Your task to perform on an android device: Open privacy settings Image 0: 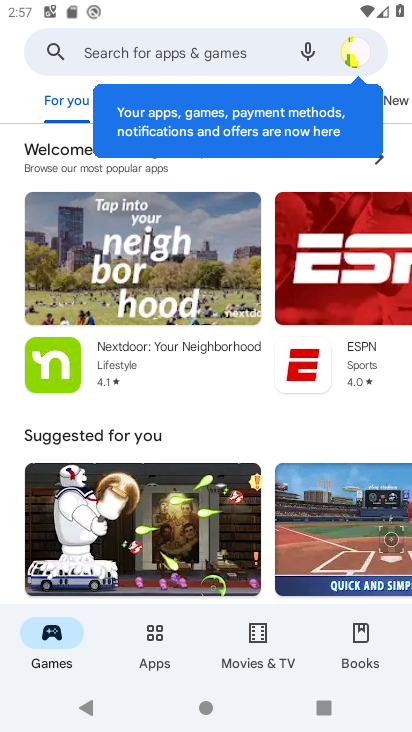
Step 0: press home button
Your task to perform on an android device: Open privacy settings Image 1: 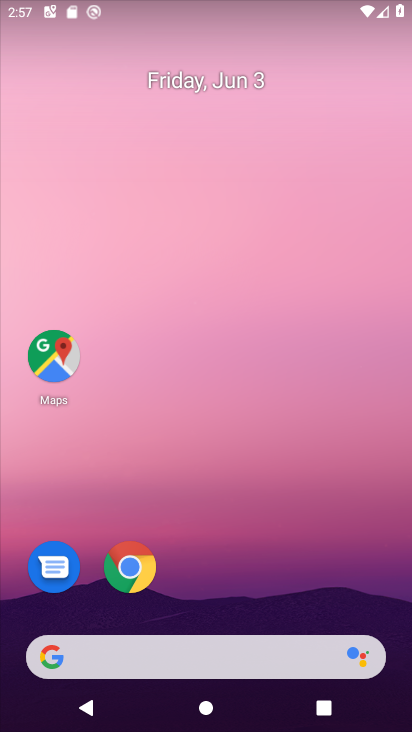
Step 1: drag from (234, 557) to (264, 189)
Your task to perform on an android device: Open privacy settings Image 2: 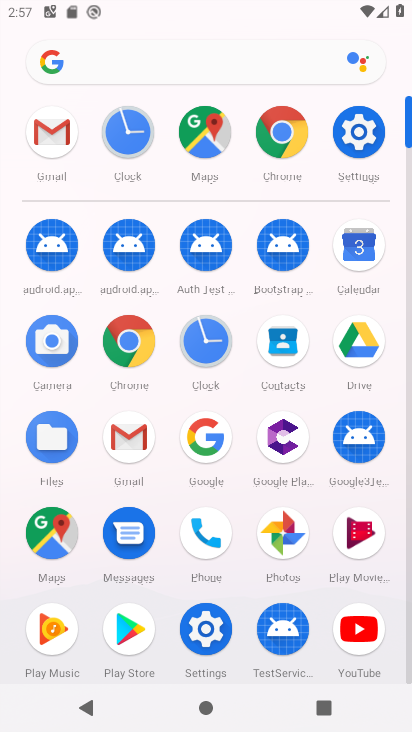
Step 2: click (365, 138)
Your task to perform on an android device: Open privacy settings Image 3: 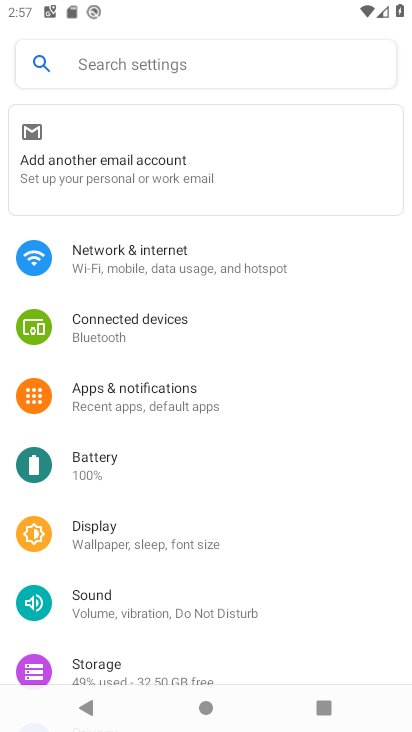
Step 3: drag from (225, 575) to (226, 262)
Your task to perform on an android device: Open privacy settings Image 4: 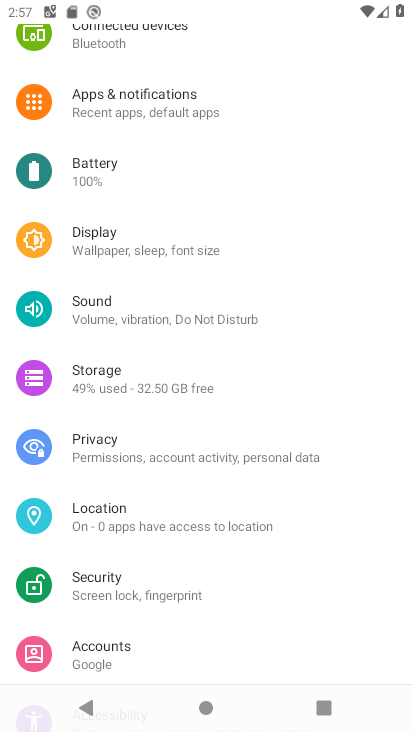
Step 4: click (146, 449)
Your task to perform on an android device: Open privacy settings Image 5: 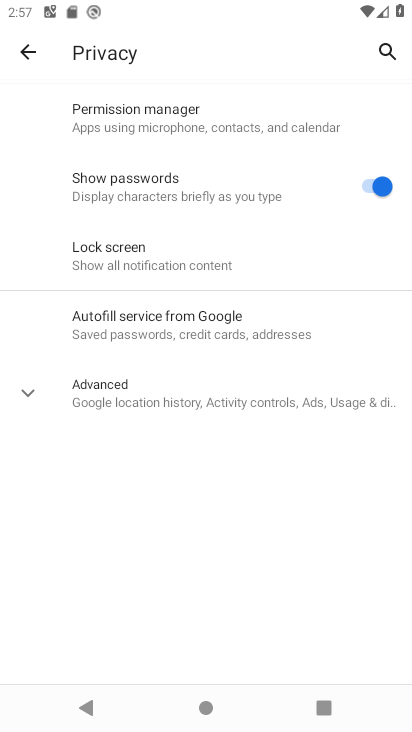
Step 5: task complete